Your task to perform on an android device: find photos in the google photos app Image 0: 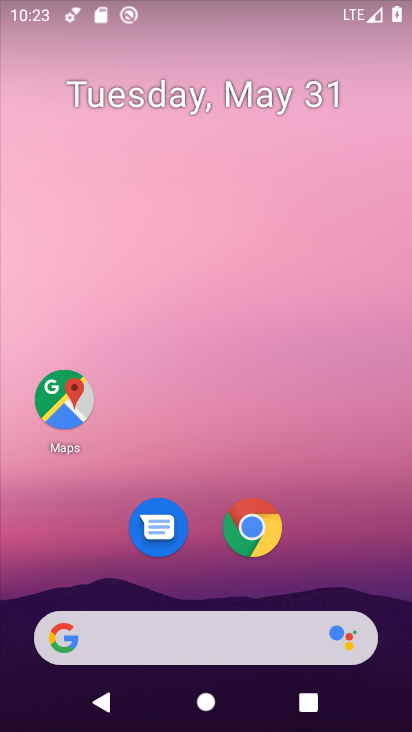
Step 0: drag from (315, 534) to (283, 7)
Your task to perform on an android device: find photos in the google photos app Image 1: 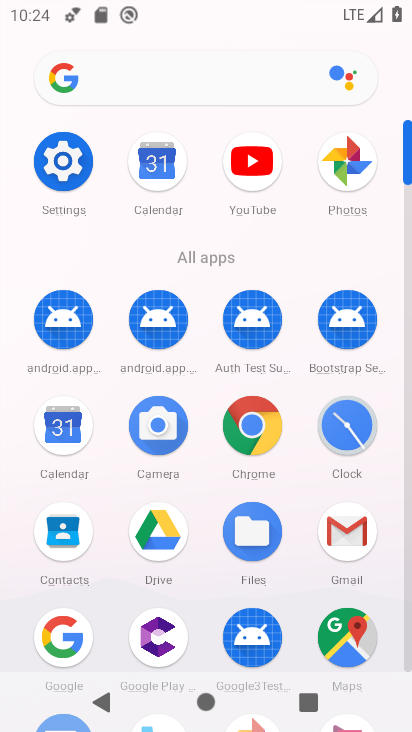
Step 1: click (346, 168)
Your task to perform on an android device: find photos in the google photos app Image 2: 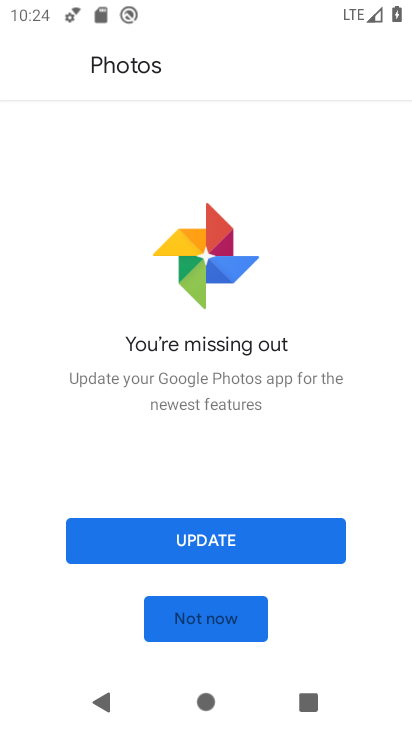
Step 2: click (182, 624)
Your task to perform on an android device: find photos in the google photos app Image 3: 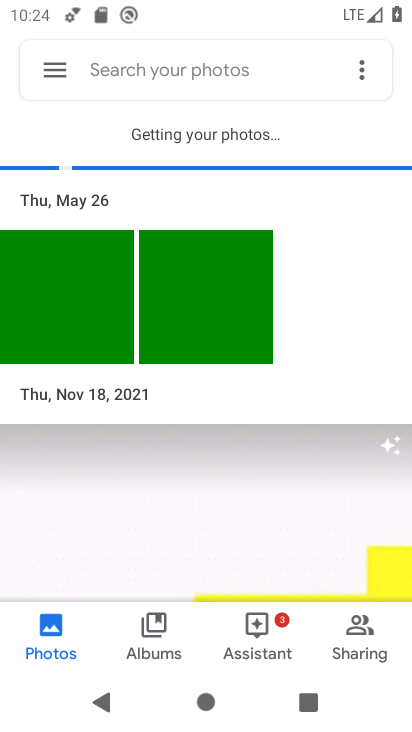
Step 3: task complete